Your task to perform on an android device: set the stopwatch Image 0: 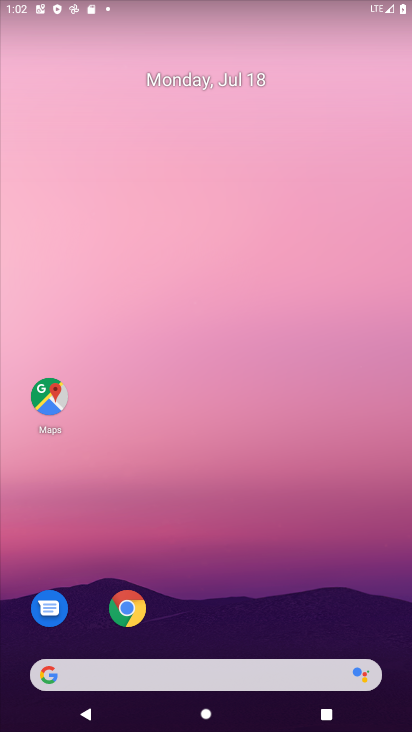
Step 0: drag from (395, 672) to (306, 75)
Your task to perform on an android device: set the stopwatch Image 1: 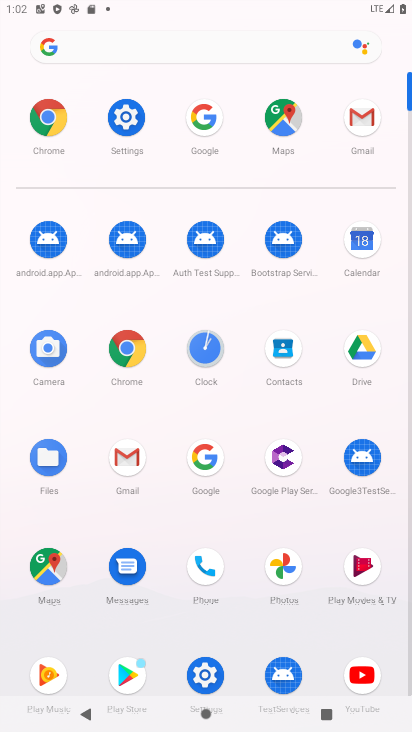
Step 1: click (206, 337)
Your task to perform on an android device: set the stopwatch Image 2: 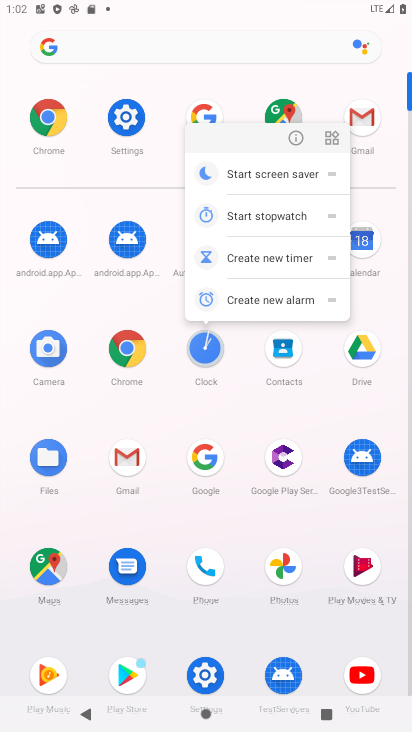
Step 2: click (206, 337)
Your task to perform on an android device: set the stopwatch Image 3: 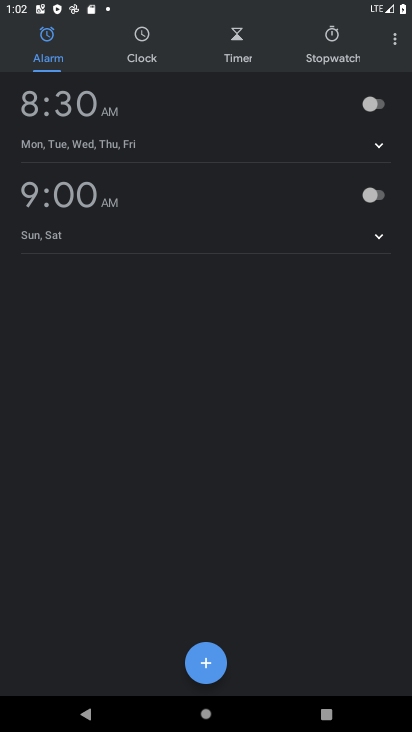
Step 3: click (337, 42)
Your task to perform on an android device: set the stopwatch Image 4: 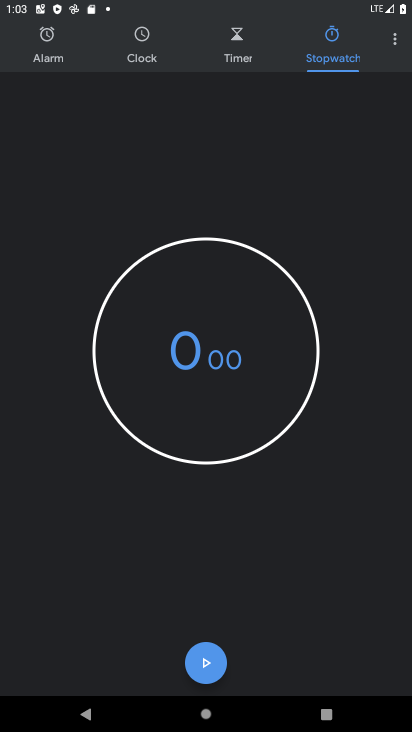
Step 4: task complete